Your task to perform on an android device: Open the stopwatch Image 0: 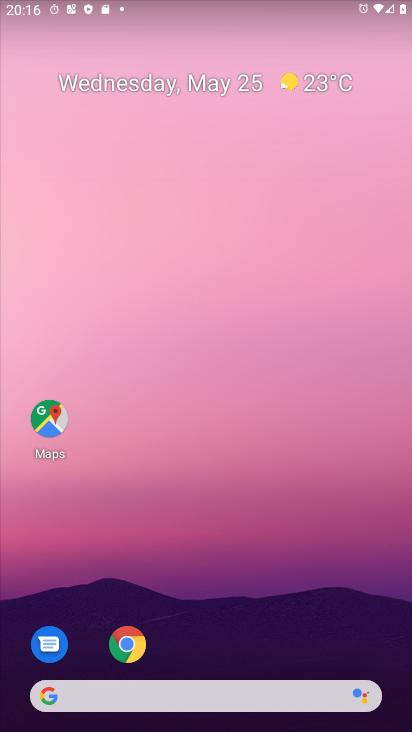
Step 0: drag from (260, 706) to (219, 94)
Your task to perform on an android device: Open the stopwatch Image 1: 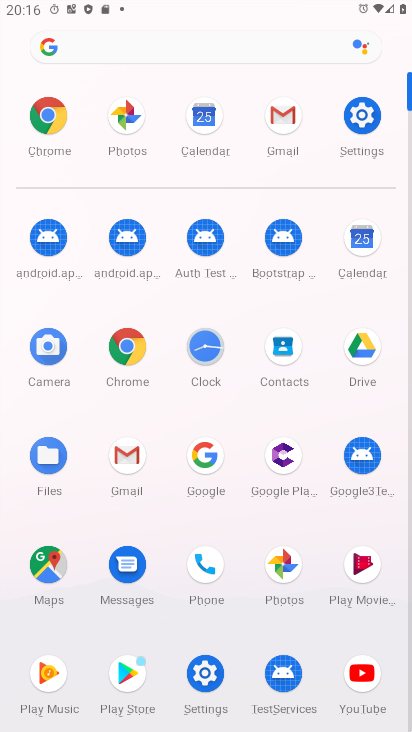
Step 1: click (218, 345)
Your task to perform on an android device: Open the stopwatch Image 2: 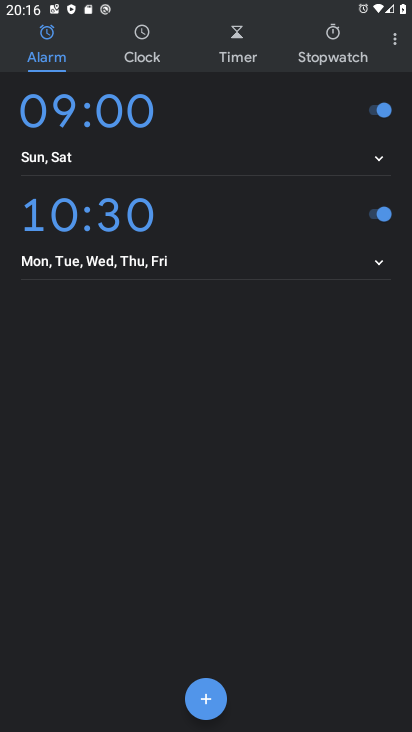
Step 2: click (330, 53)
Your task to perform on an android device: Open the stopwatch Image 3: 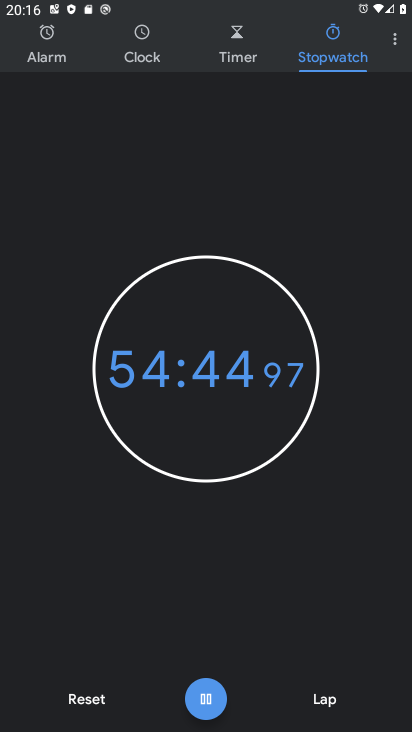
Step 3: task complete